Your task to perform on an android device: uninstall "Walmart Shopping & Grocery" Image 0: 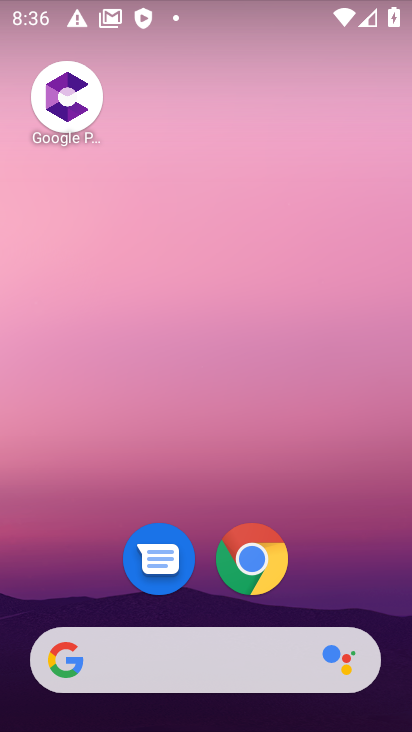
Step 0: drag from (290, 581) to (301, 4)
Your task to perform on an android device: uninstall "Walmart Shopping & Grocery" Image 1: 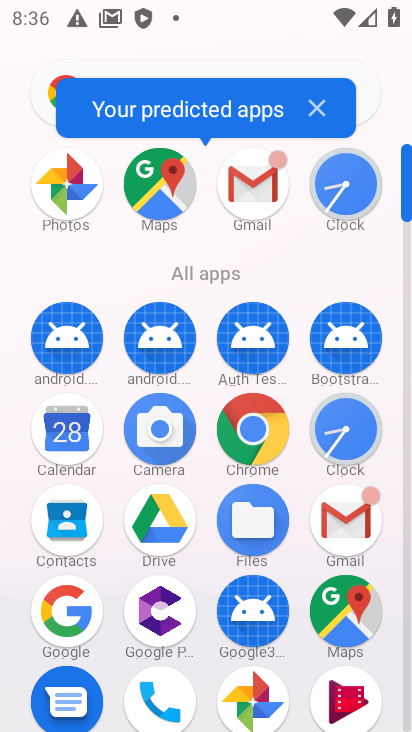
Step 1: click (407, 579)
Your task to perform on an android device: uninstall "Walmart Shopping & Grocery" Image 2: 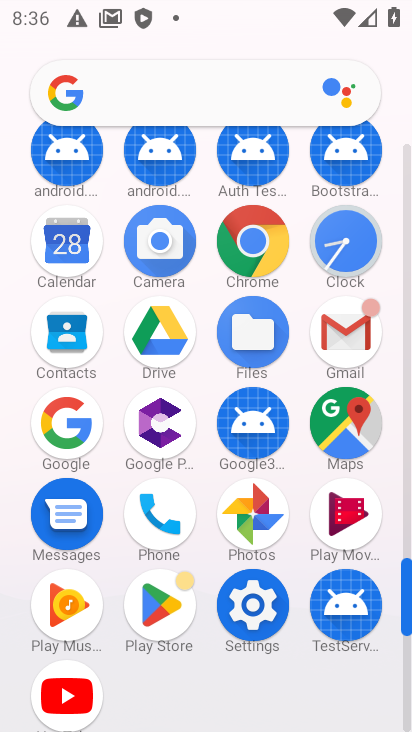
Step 2: click (152, 624)
Your task to perform on an android device: uninstall "Walmart Shopping & Grocery" Image 3: 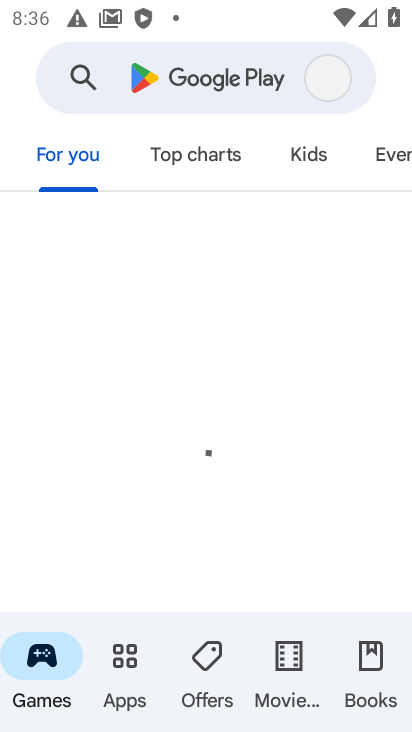
Step 3: click (185, 80)
Your task to perform on an android device: uninstall "Walmart Shopping & Grocery" Image 4: 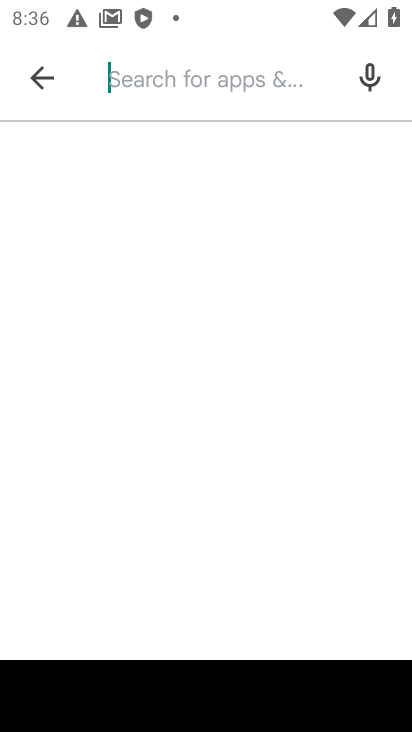
Step 4: type "Walmart Shopping & Grocery"
Your task to perform on an android device: uninstall "Walmart Shopping & Grocery" Image 5: 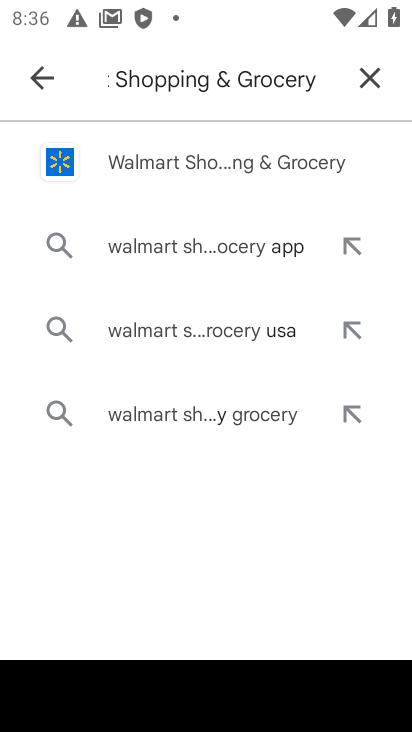
Step 5: click (217, 164)
Your task to perform on an android device: uninstall "Walmart Shopping & Grocery" Image 6: 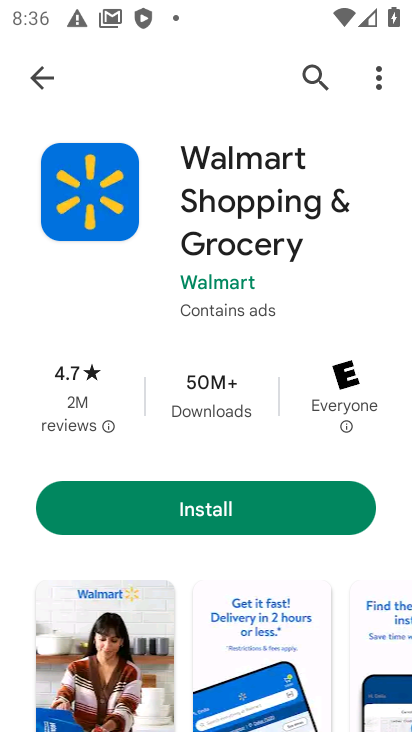
Step 6: task complete